Your task to perform on an android device: Go to internet settings Image 0: 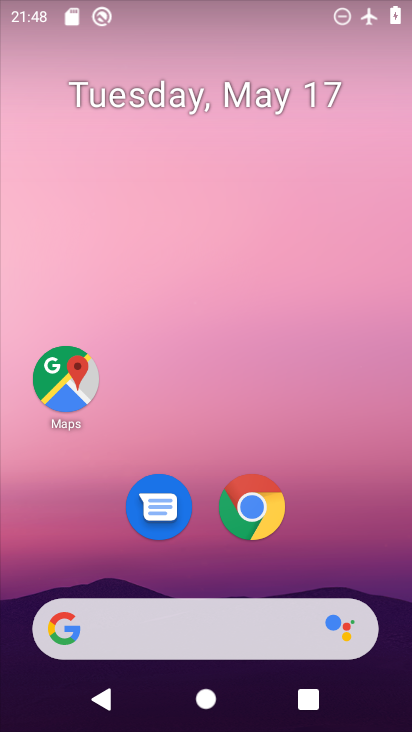
Step 0: drag from (375, 381) to (344, 33)
Your task to perform on an android device: Go to internet settings Image 1: 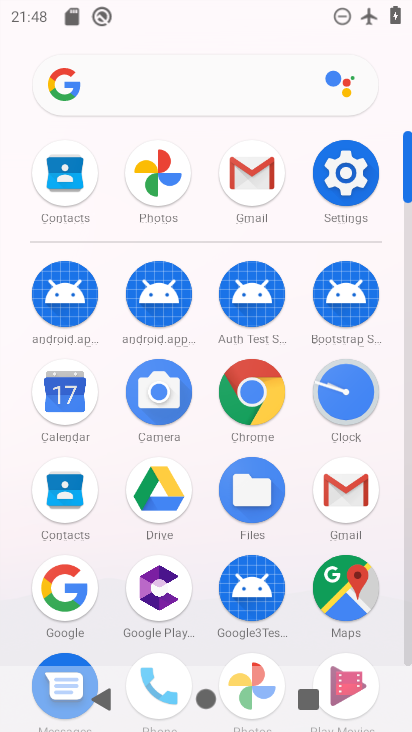
Step 1: click (353, 181)
Your task to perform on an android device: Go to internet settings Image 2: 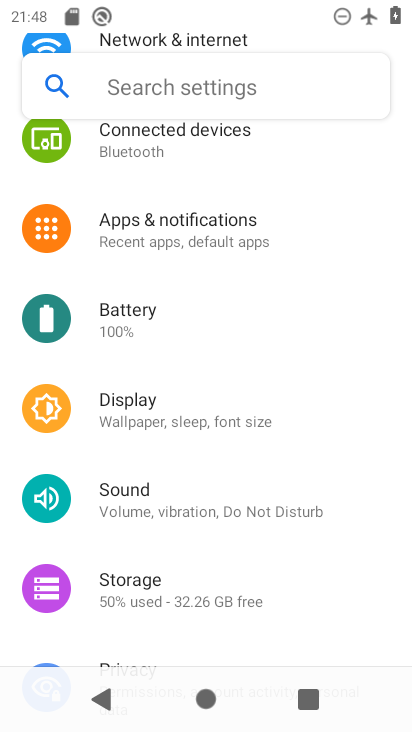
Step 2: drag from (225, 172) to (229, 460)
Your task to perform on an android device: Go to internet settings Image 3: 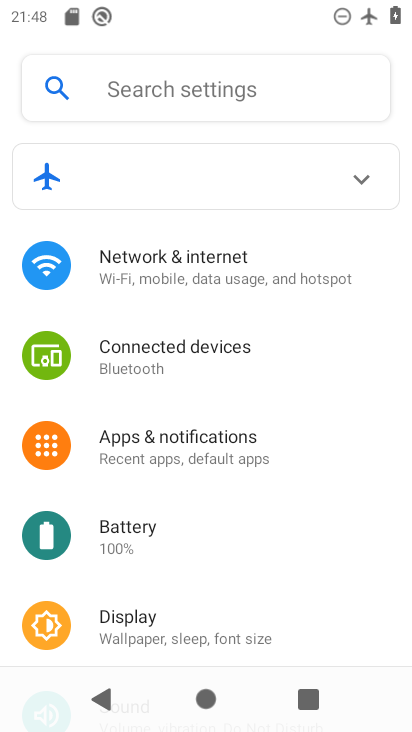
Step 3: click (174, 273)
Your task to perform on an android device: Go to internet settings Image 4: 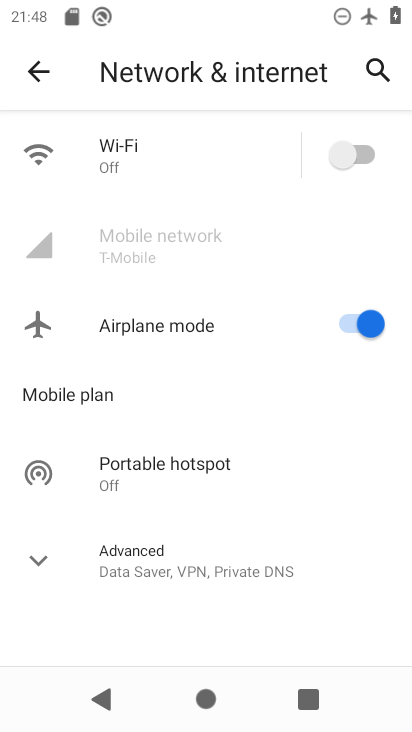
Step 4: task complete